Your task to perform on an android device: Open the phone app and click the voicemail tab. Image 0: 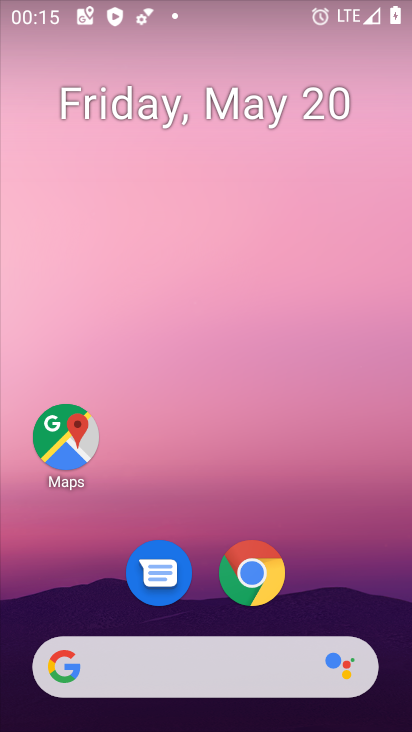
Step 0: drag from (208, 431) to (199, 140)
Your task to perform on an android device: Open the phone app and click the voicemail tab. Image 1: 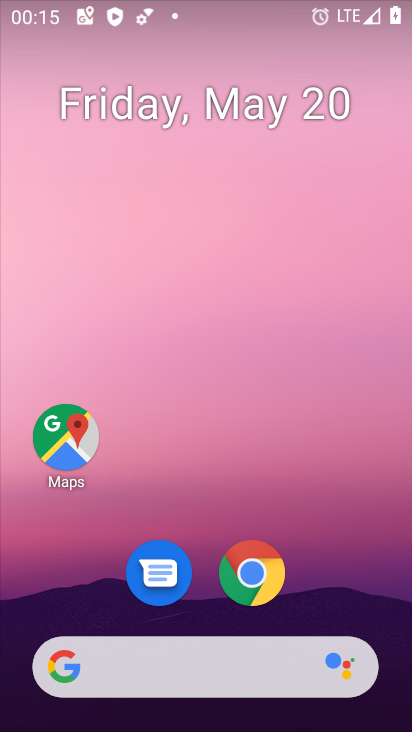
Step 1: drag from (203, 617) to (170, 150)
Your task to perform on an android device: Open the phone app and click the voicemail tab. Image 2: 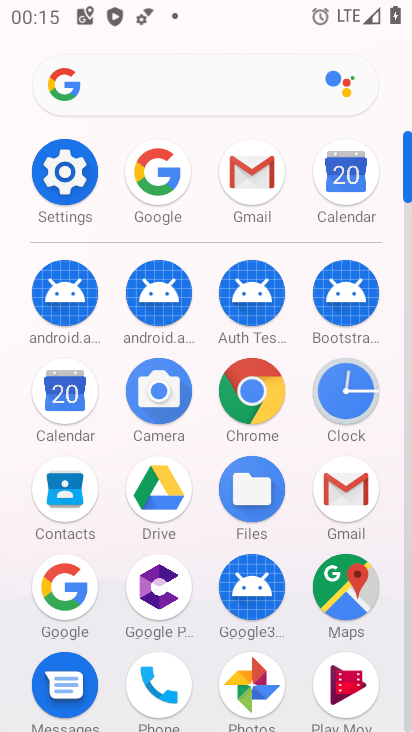
Step 2: click (154, 667)
Your task to perform on an android device: Open the phone app and click the voicemail tab. Image 3: 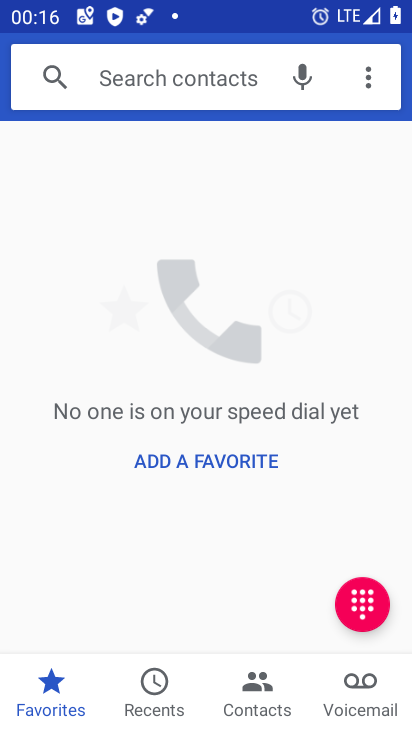
Step 3: click (357, 671)
Your task to perform on an android device: Open the phone app and click the voicemail tab. Image 4: 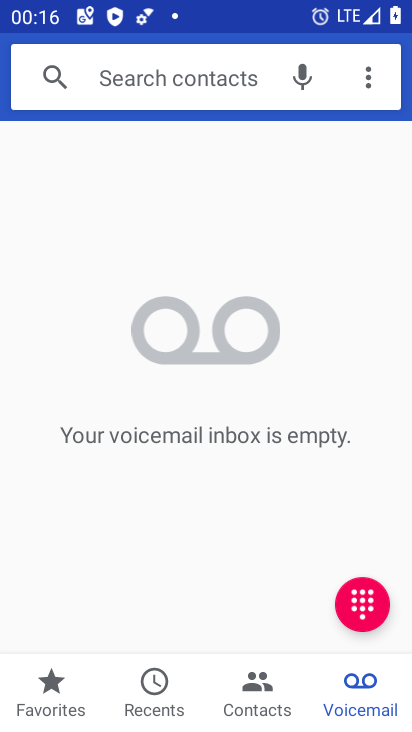
Step 4: task complete